Your task to perform on an android device: open device folders in google photos Image 0: 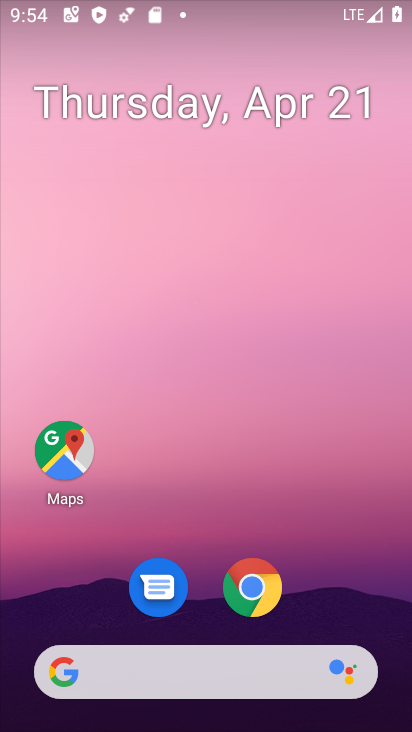
Step 0: drag from (370, 591) to (367, 46)
Your task to perform on an android device: open device folders in google photos Image 1: 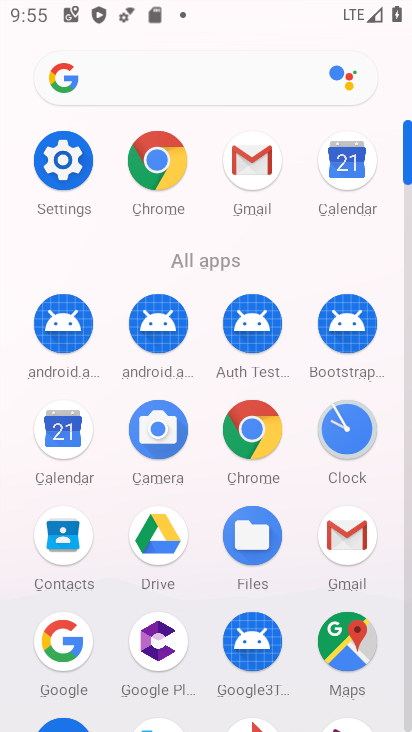
Step 1: drag from (393, 545) to (401, 150)
Your task to perform on an android device: open device folders in google photos Image 2: 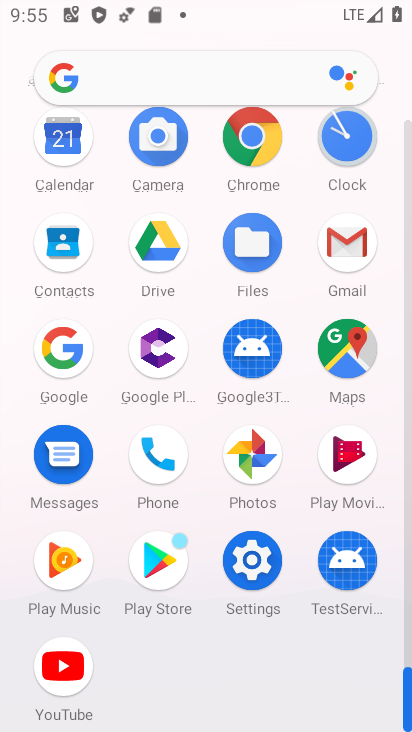
Step 2: click (254, 456)
Your task to perform on an android device: open device folders in google photos Image 3: 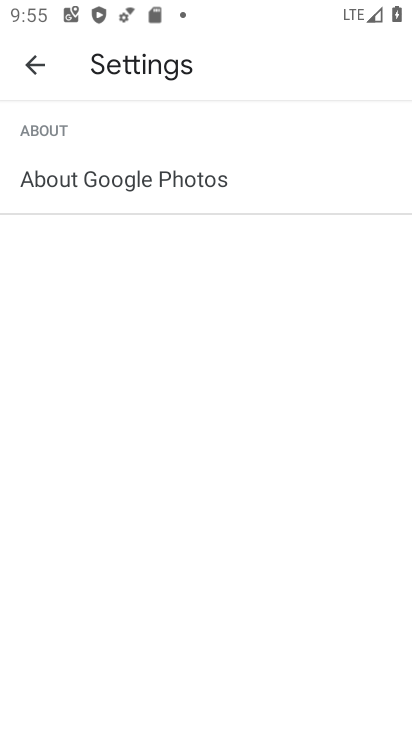
Step 3: click (42, 62)
Your task to perform on an android device: open device folders in google photos Image 4: 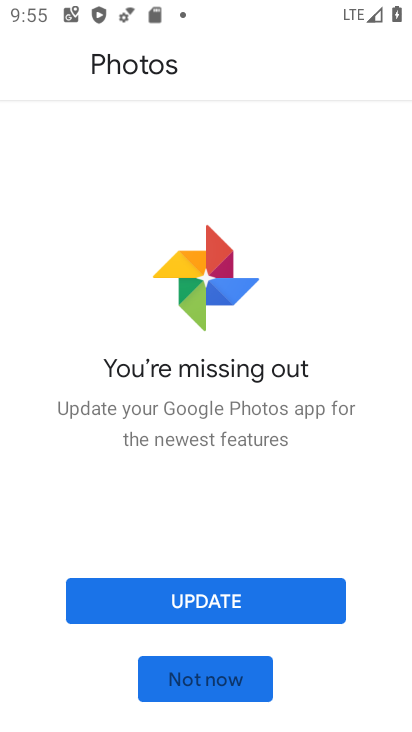
Step 4: click (279, 604)
Your task to perform on an android device: open device folders in google photos Image 5: 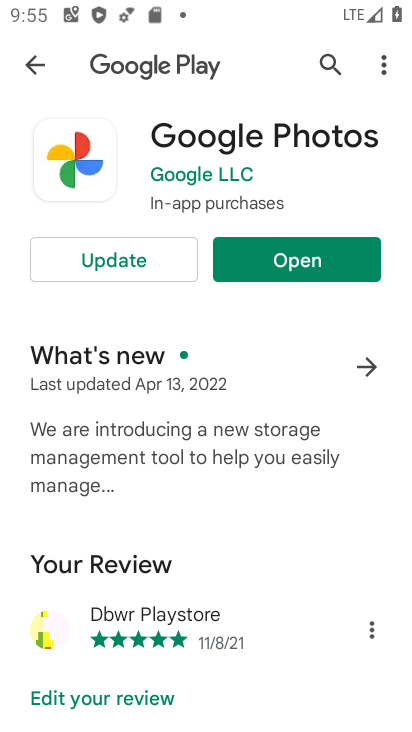
Step 5: click (132, 271)
Your task to perform on an android device: open device folders in google photos Image 6: 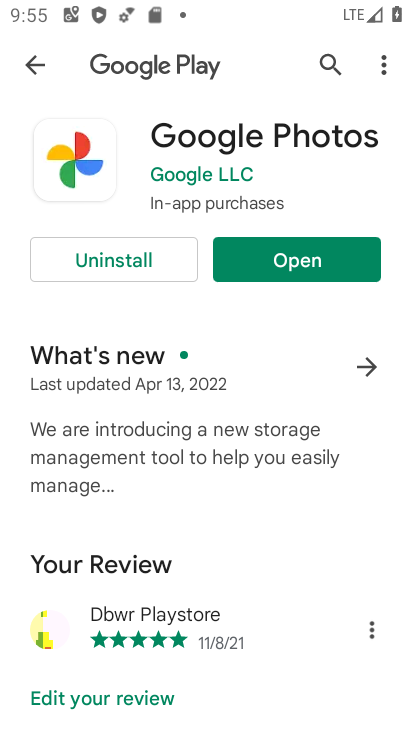
Step 6: click (331, 247)
Your task to perform on an android device: open device folders in google photos Image 7: 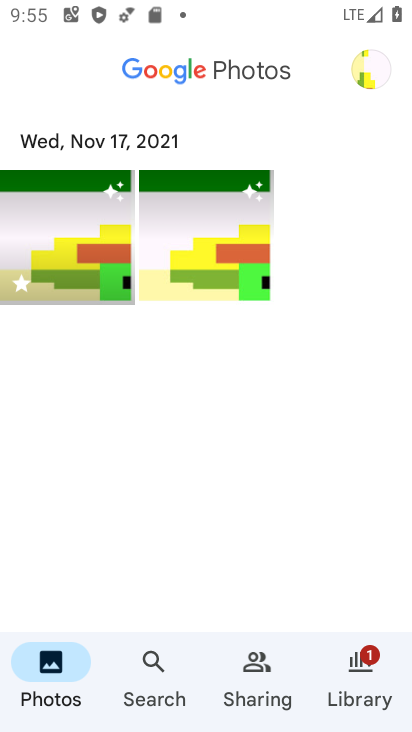
Step 7: click (349, 661)
Your task to perform on an android device: open device folders in google photos Image 8: 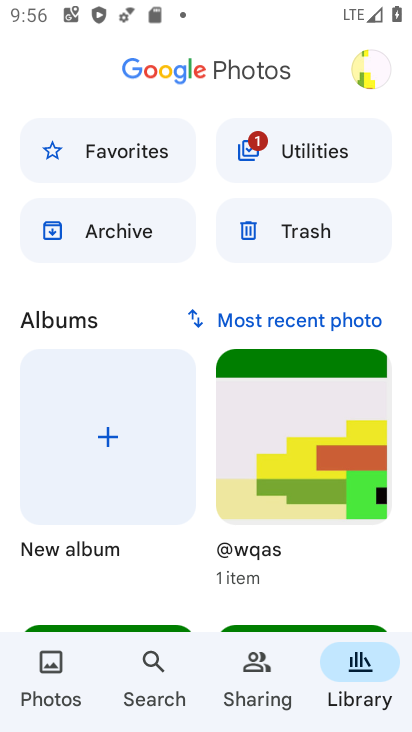
Step 8: task complete